Your task to perform on an android device: Search for Mexican restaurants on Maps Image 0: 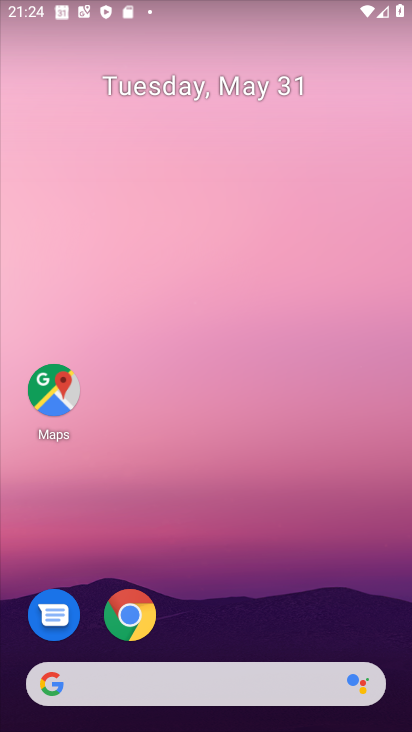
Step 0: click (57, 386)
Your task to perform on an android device: Search for Mexican restaurants on Maps Image 1: 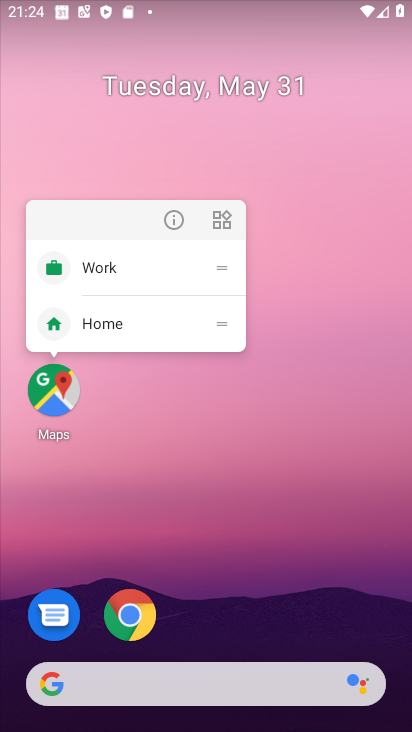
Step 1: click (40, 387)
Your task to perform on an android device: Search for Mexican restaurants on Maps Image 2: 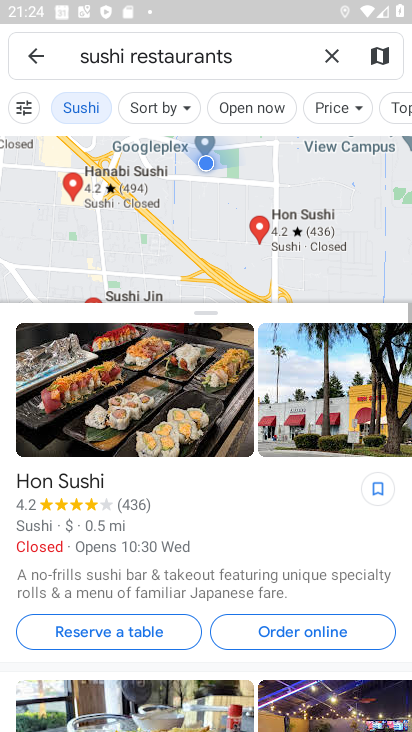
Step 2: click (327, 55)
Your task to perform on an android device: Search for Mexican restaurants on Maps Image 3: 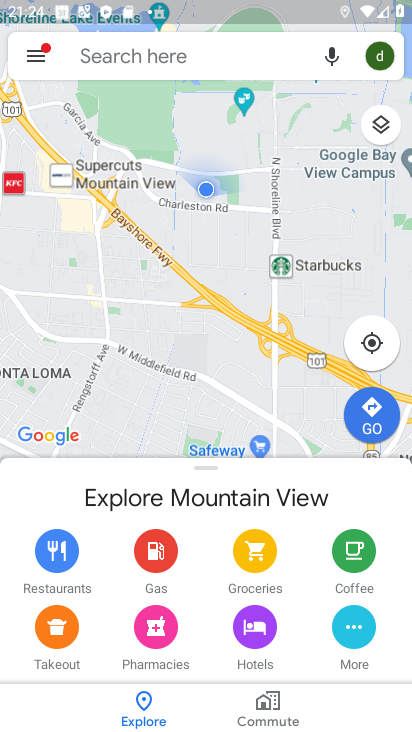
Step 3: click (168, 56)
Your task to perform on an android device: Search for Mexican restaurants on Maps Image 4: 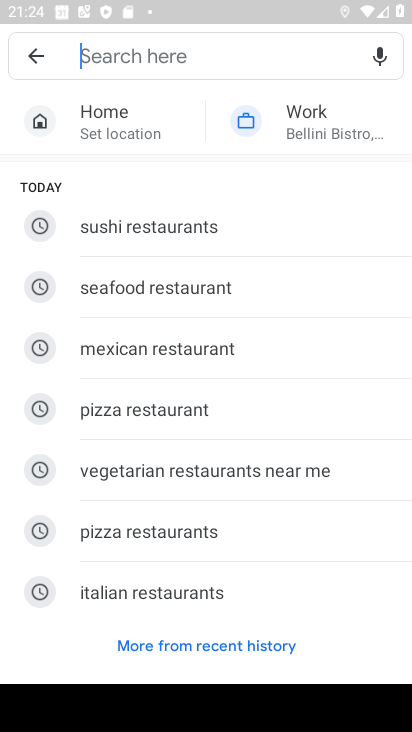
Step 4: type "Mexican restaurants "
Your task to perform on an android device: Search for Mexican restaurants on Maps Image 5: 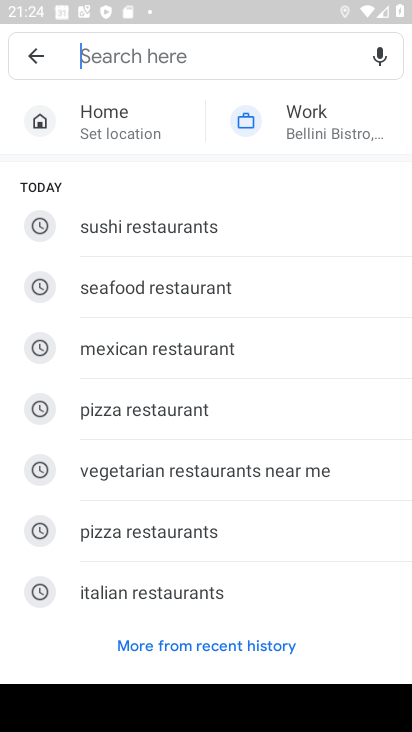
Step 5: click (200, 350)
Your task to perform on an android device: Search for Mexican restaurants on Maps Image 6: 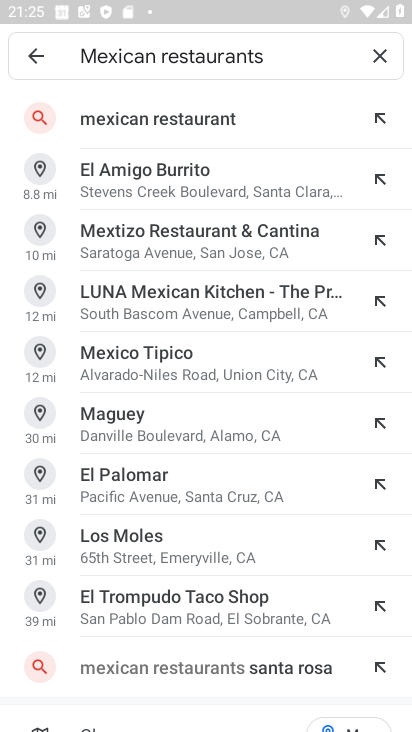
Step 6: click (129, 119)
Your task to perform on an android device: Search for Mexican restaurants on Maps Image 7: 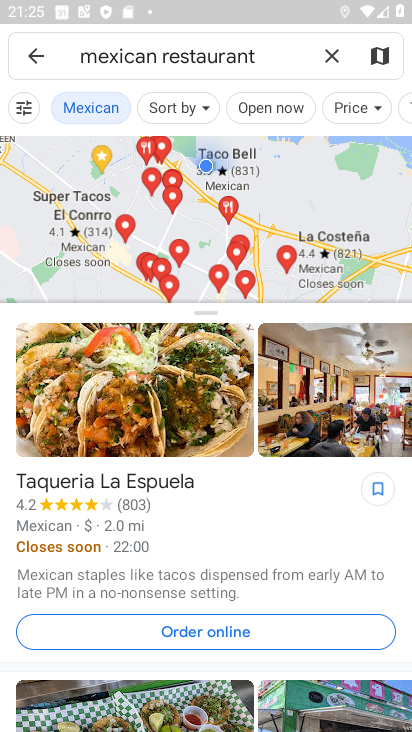
Step 7: task complete